Your task to perform on an android device: Open Google Maps and go to "Timeline" Image 0: 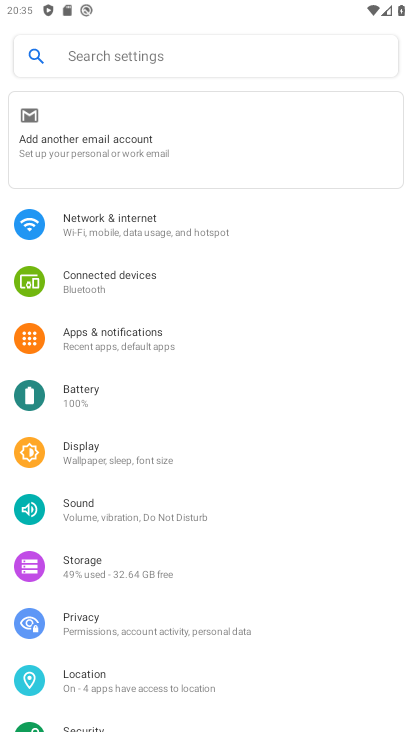
Step 0: press home button
Your task to perform on an android device: Open Google Maps and go to "Timeline" Image 1: 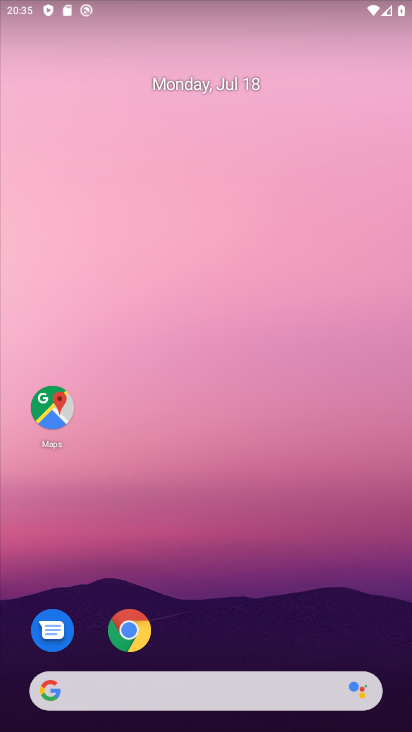
Step 1: drag from (243, 647) to (225, 159)
Your task to perform on an android device: Open Google Maps and go to "Timeline" Image 2: 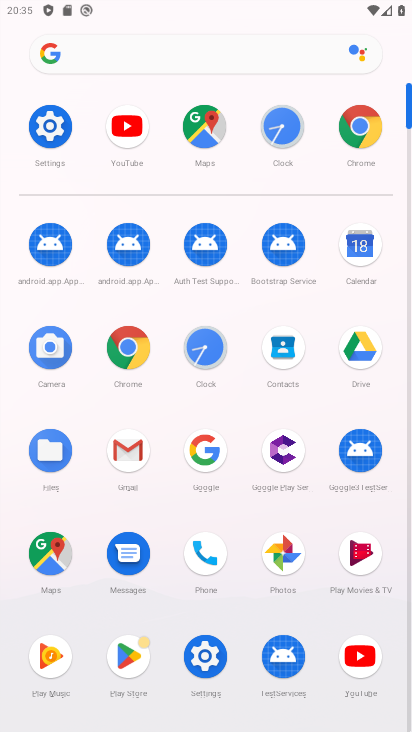
Step 2: click (64, 552)
Your task to perform on an android device: Open Google Maps and go to "Timeline" Image 3: 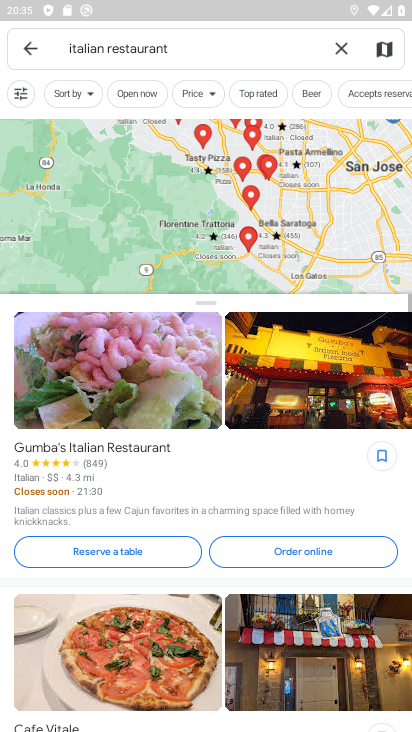
Step 3: click (339, 38)
Your task to perform on an android device: Open Google Maps and go to "Timeline" Image 4: 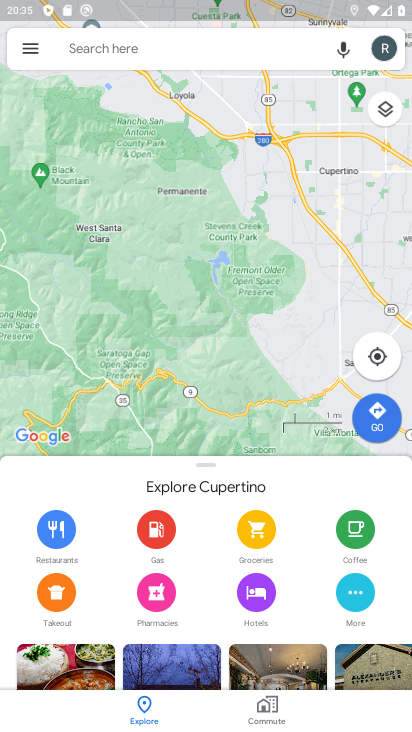
Step 4: click (38, 41)
Your task to perform on an android device: Open Google Maps and go to "Timeline" Image 5: 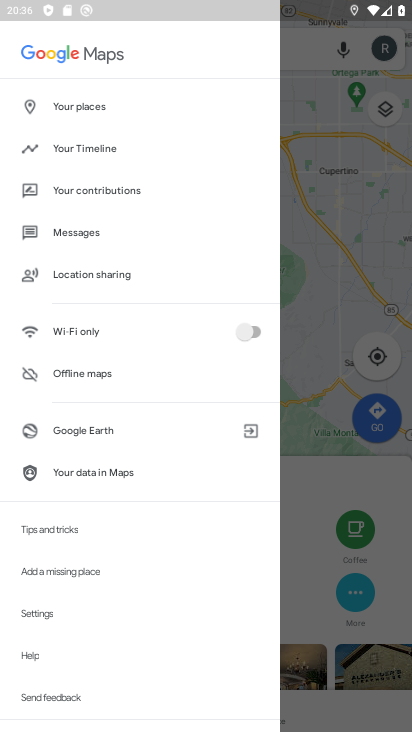
Step 5: click (74, 144)
Your task to perform on an android device: Open Google Maps and go to "Timeline" Image 6: 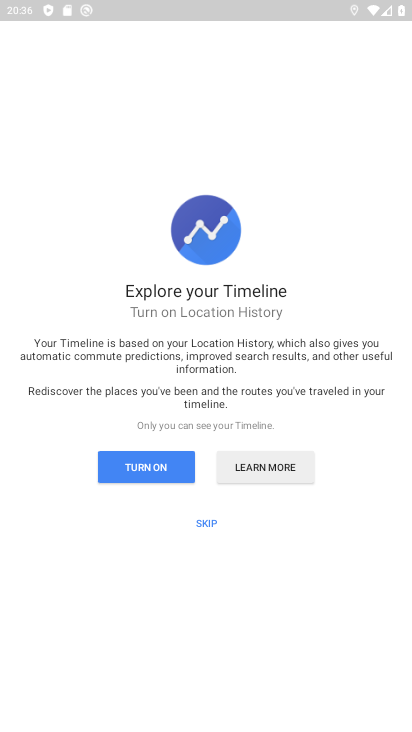
Step 6: click (135, 461)
Your task to perform on an android device: Open Google Maps and go to "Timeline" Image 7: 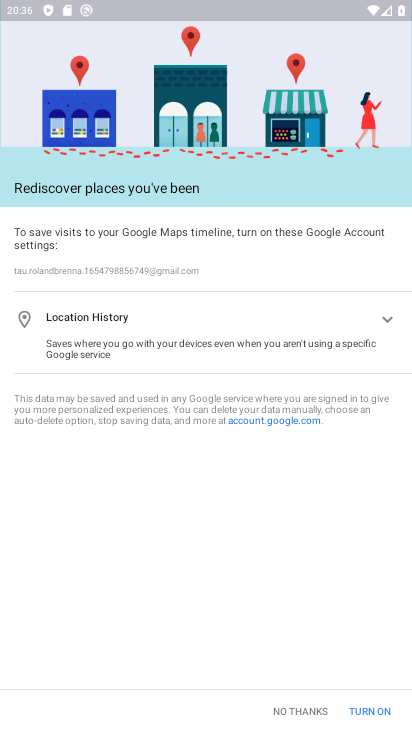
Step 7: task complete